Your task to perform on an android device: clear all cookies in the chrome app Image 0: 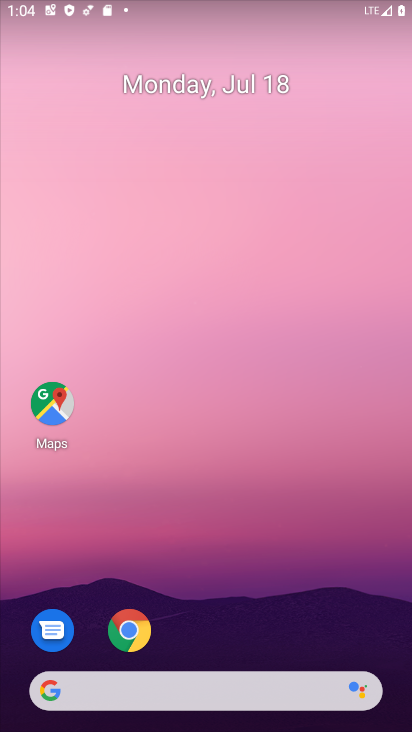
Step 0: click (140, 632)
Your task to perform on an android device: clear all cookies in the chrome app Image 1: 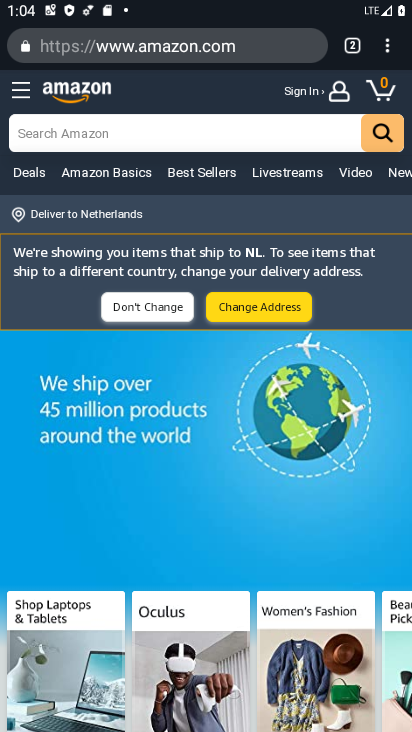
Step 1: click (384, 46)
Your task to perform on an android device: clear all cookies in the chrome app Image 2: 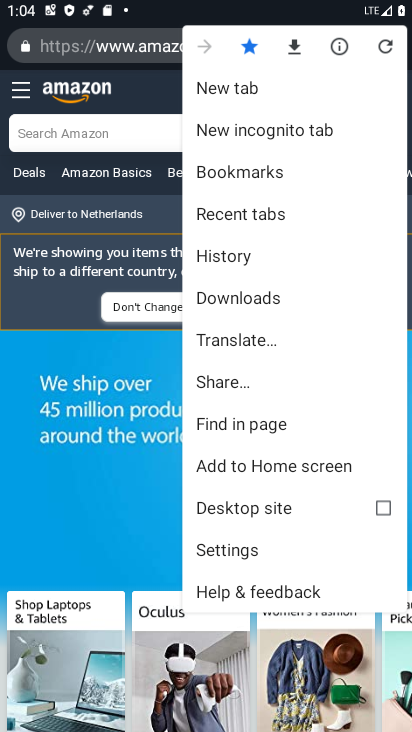
Step 2: click (248, 547)
Your task to perform on an android device: clear all cookies in the chrome app Image 3: 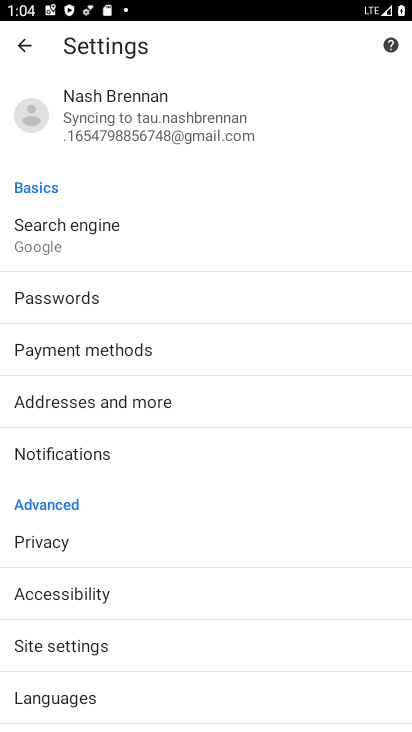
Step 3: click (212, 553)
Your task to perform on an android device: clear all cookies in the chrome app Image 4: 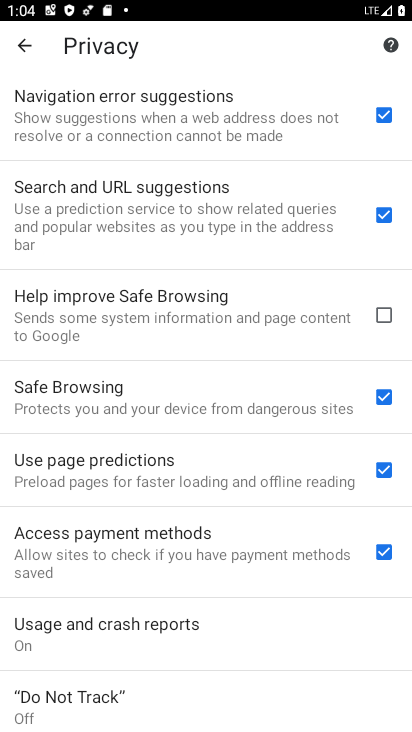
Step 4: drag from (228, 578) to (201, 211)
Your task to perform on an android device: clear all cookies in the chrome app Image 5: 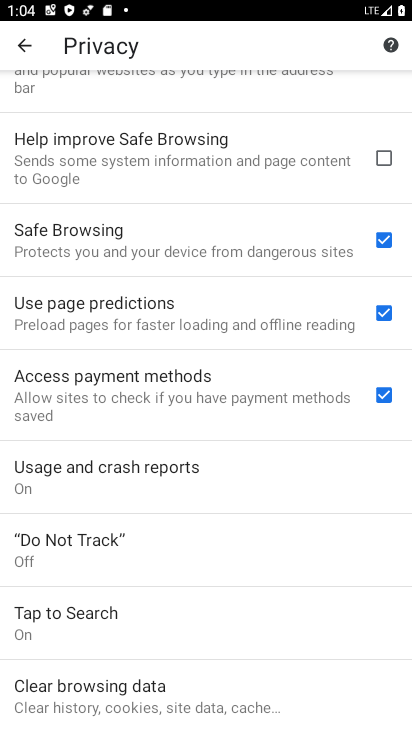
Step 5: click (161, 698)
Your task to perform on an android device: clear all cookies in the chrome app Image 6: 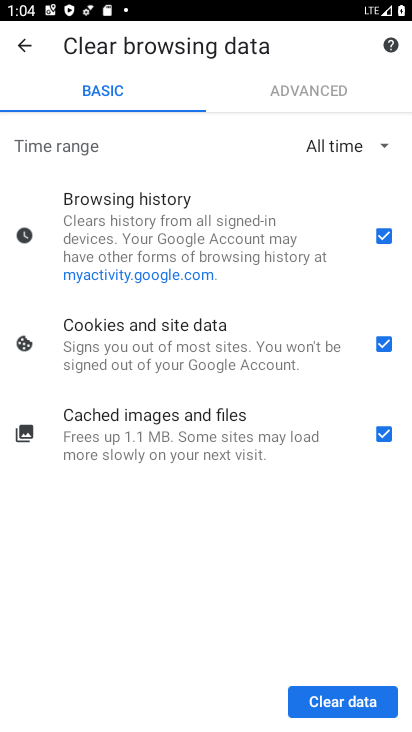
Step 6: click (381, 233)
Your task to perform on an android device: clear all cookies in the chrome app Image 7: 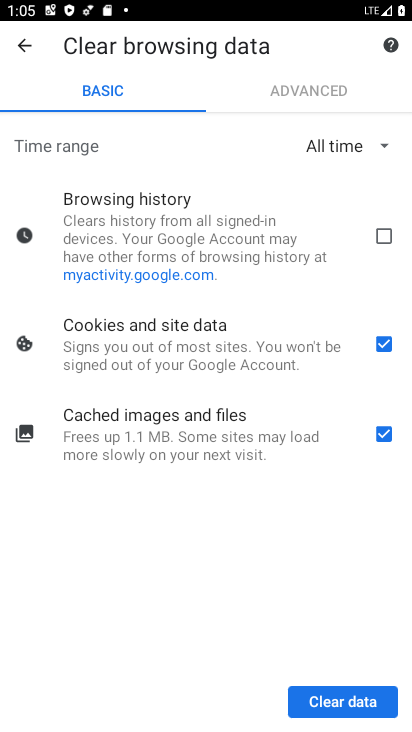
Step 7: click (378, 426)
Your task to perform on an android device: clear all cookies in the chrome app Image 8: 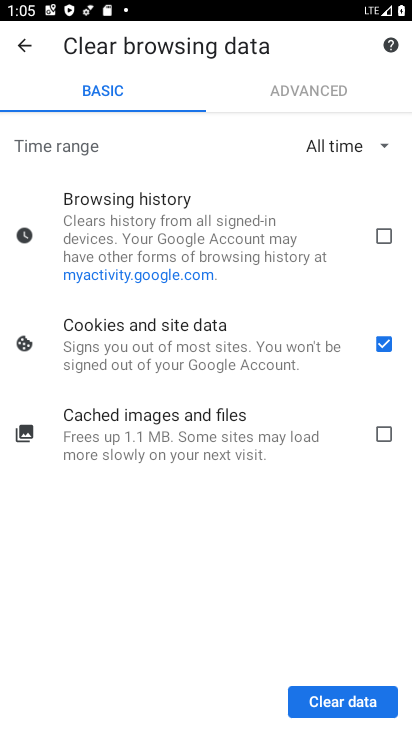
Step 8: click (331, 697)
Your task to perform on an android device: clear all cookies in the chrome app Image 9: 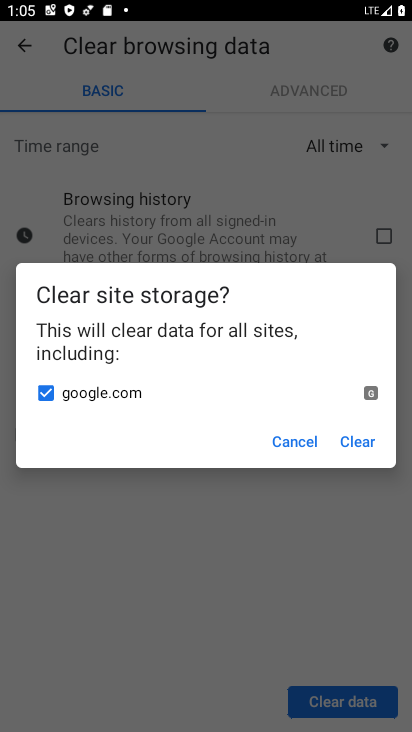
Step 9: click (368, 439)
Your task to perform on an android device: clear all cookies in the chrome app Image 10: 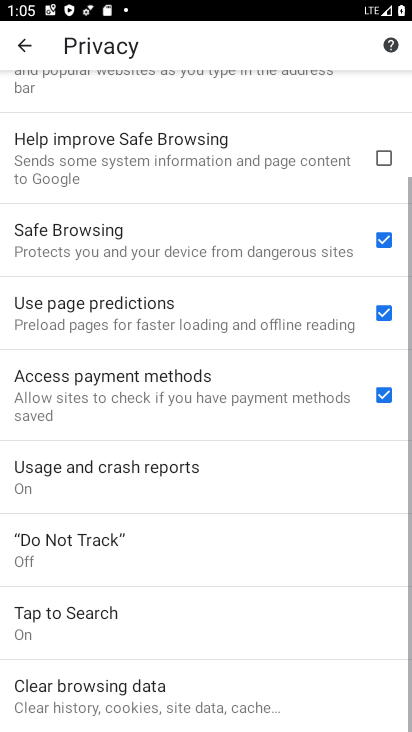
Step 10: task complete